Your task to perform on an android device: find photos in the google photos app Image 0: 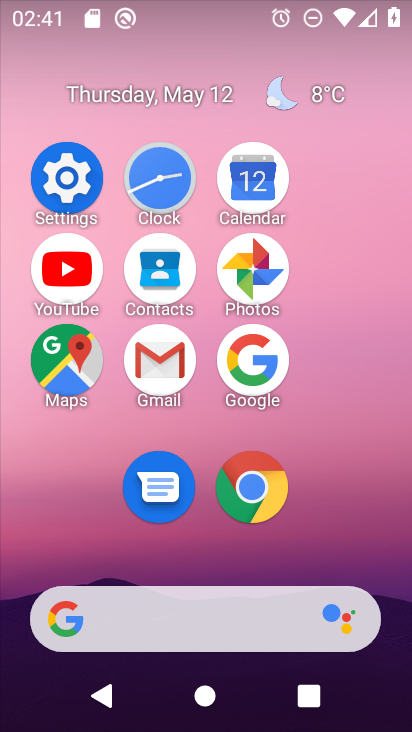
Step 0: click (243, 284)
Your task to perform on an android device: find photos in the google photos app Image 1: 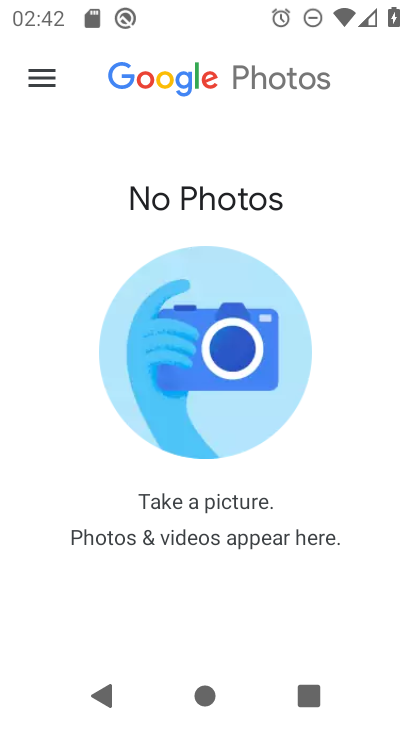
Step 1: task complete